Your task to perform on an android device: Open wifi settings Image 0: 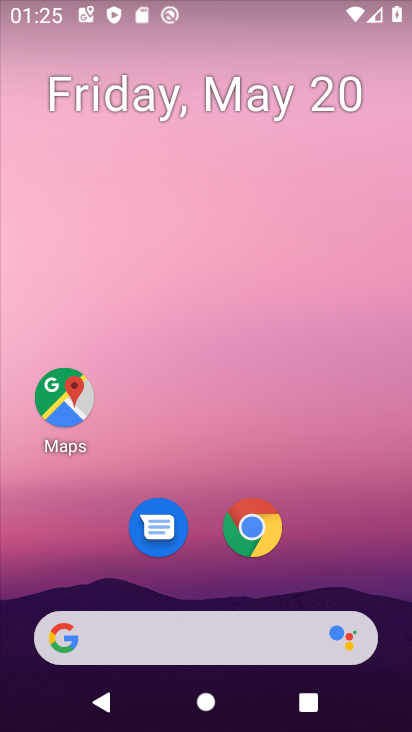
Step 0: press home button
Your task to perform on an android device: Open wifi settings Image 1: 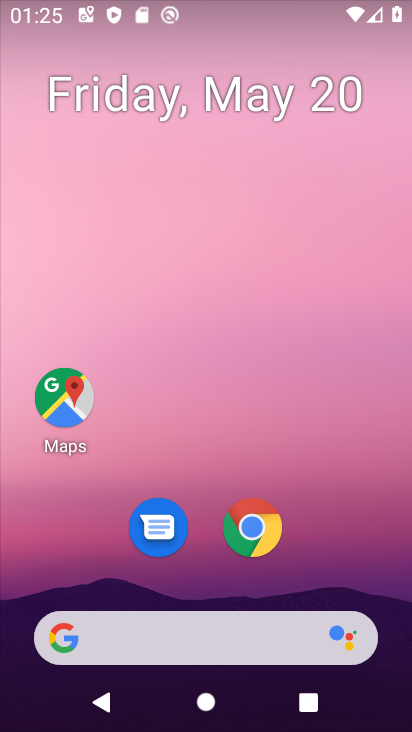
Step 1: drag from (132, 644) to (257, 145)
Your task to perform on an android device: Open wifi settings Image 2: 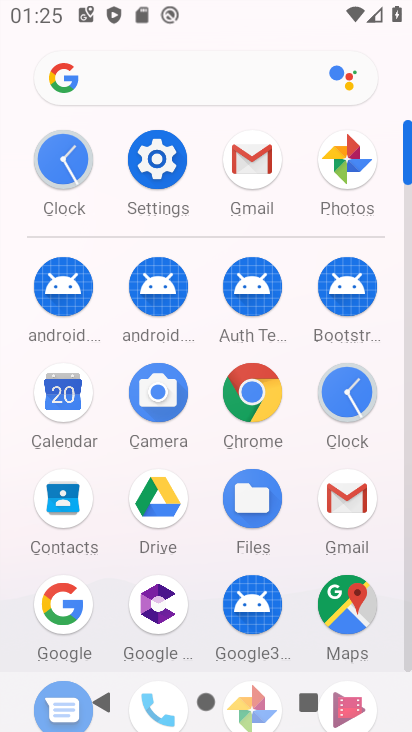
Step 2: click (150, 169)
Your task to perform on an android device: Open wifi settings Image 3: 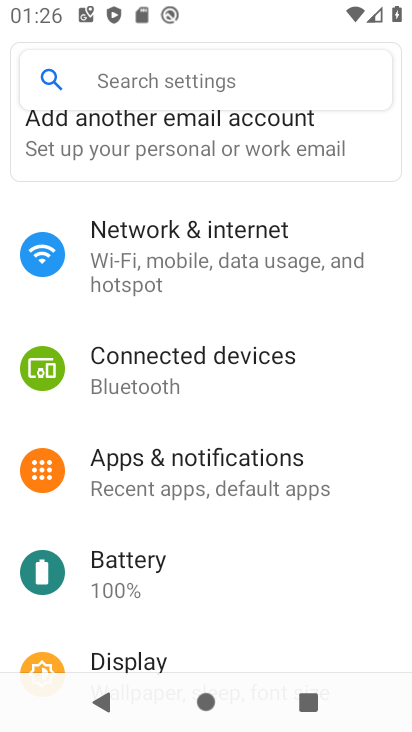
Step 3: click (164, 248)
Your task to perform on an android device: Open wifi settings Image 4: 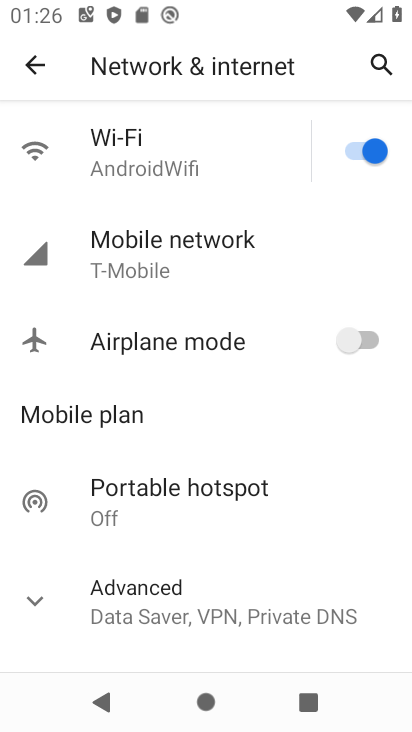
Step 4: click (158, 159)
Your task to perform on an android device: Open wifi settings Image 5: 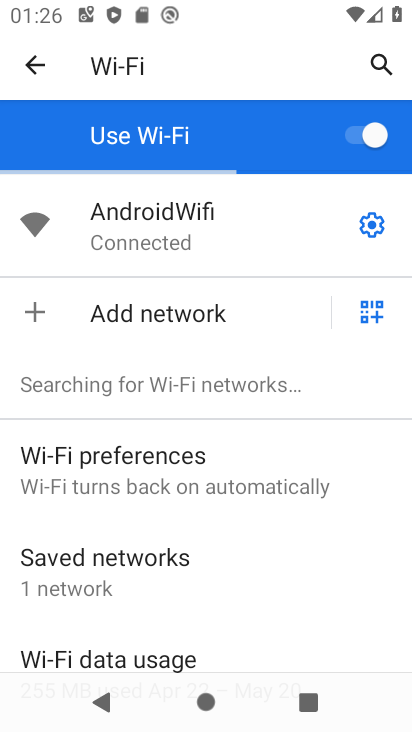
Step 5: task complete